Your task to perform on an android device: toggle sleep mode Image 0: 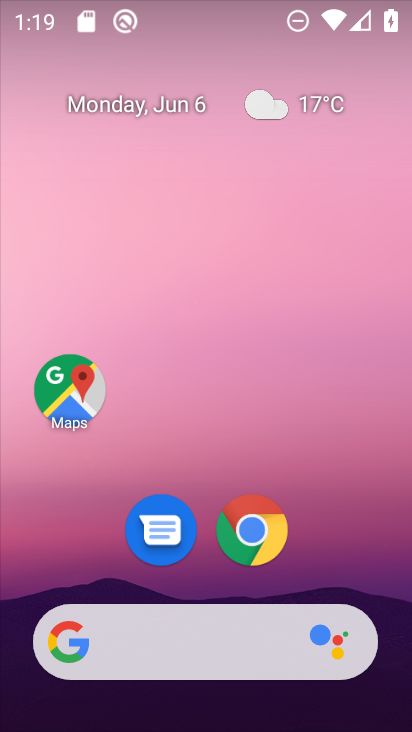
Step 0: drag from (323, 565) to (203, 5)
Your task to perform on an android device: toggle sleep mode Image 1: 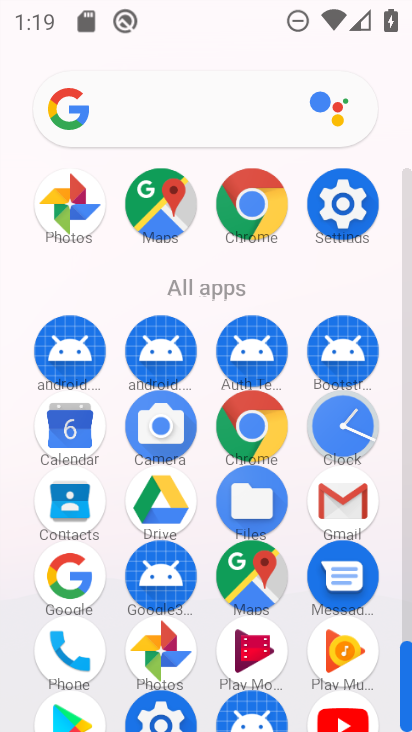
Step 1: click (343, 200)
Your task to perform on an android device: toggle sleep mode Image 2: 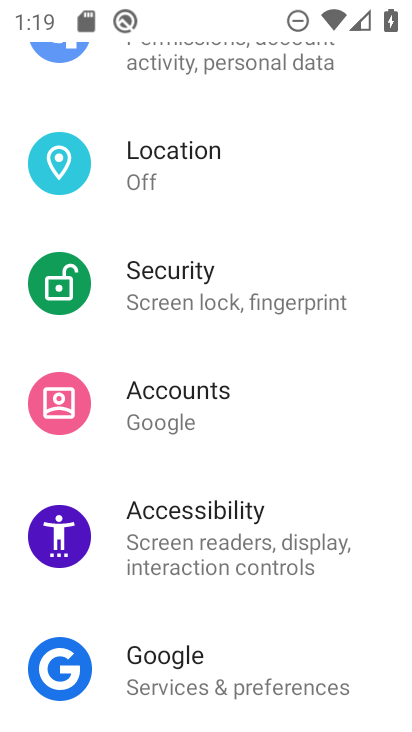
Step 2: drag from (226, 420) to (199, 501)
Your task to perform on an android device: toggle sleep mode Image 3: 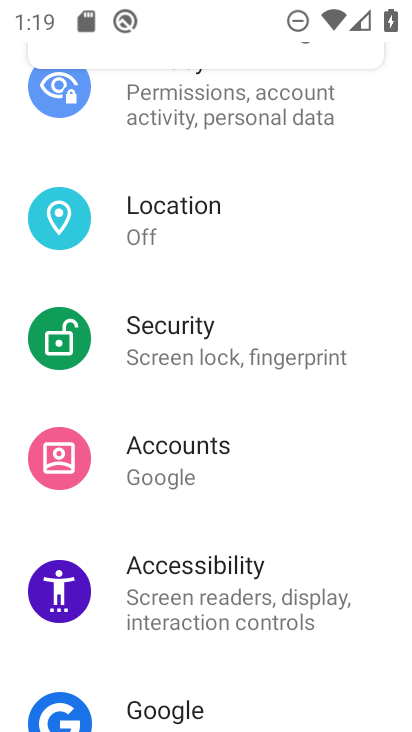
Step 3: drag from (267, 210) to (256, 404)
Your task to perform on an android device: toggle sleep mode Image 4: 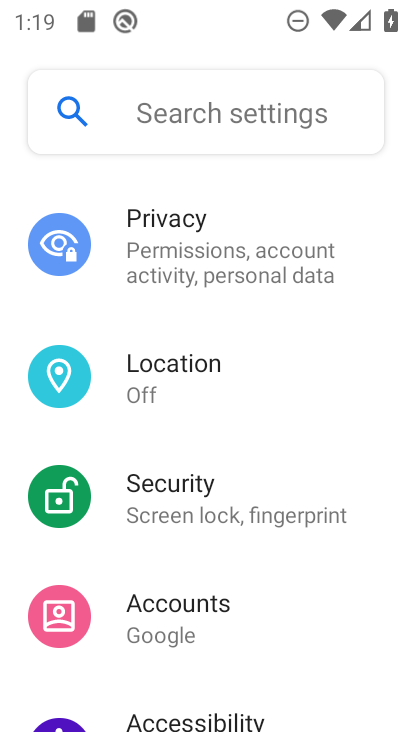
Step 4: drag from (243, 322) to (274, 437)
Your task to perform on an android device: toggle sleep mode Image 5: 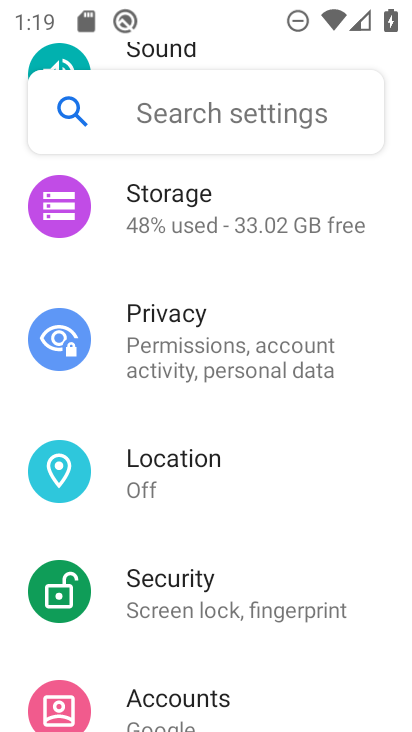
Step 5: drag from (272, 335) to (291, 424)
Your task to perform on an android device: toggle sleep mode Image 6: 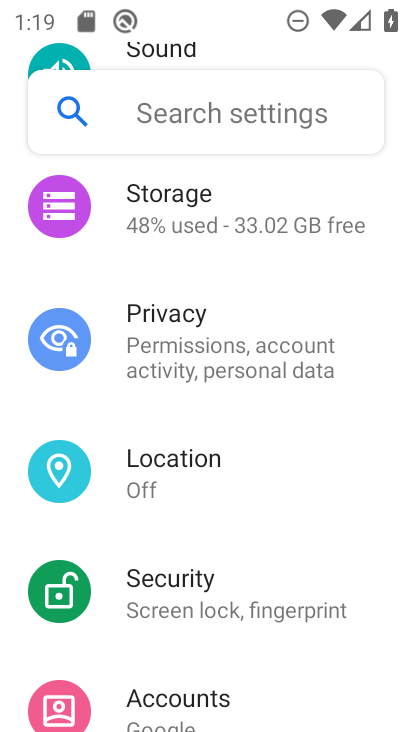
Step 6: drag from (234, 539) to (287, 461)
Your task to perform on an android device: toggle sleep mode Image 7: 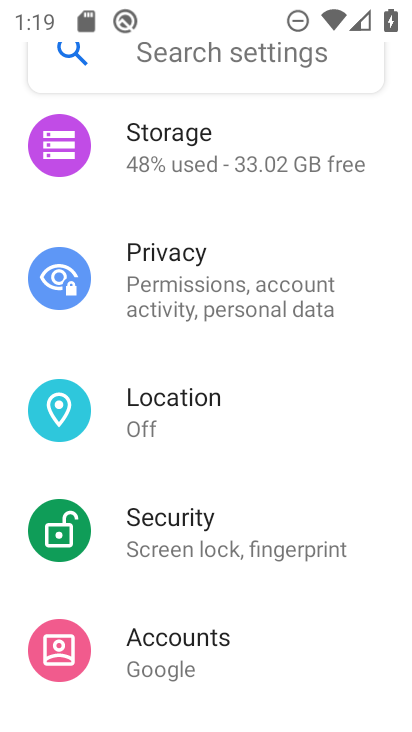
Step 7: drag from (320, 216) to (301, 505)
Your task to perform on an android device: toggle sleep mode Image 8: 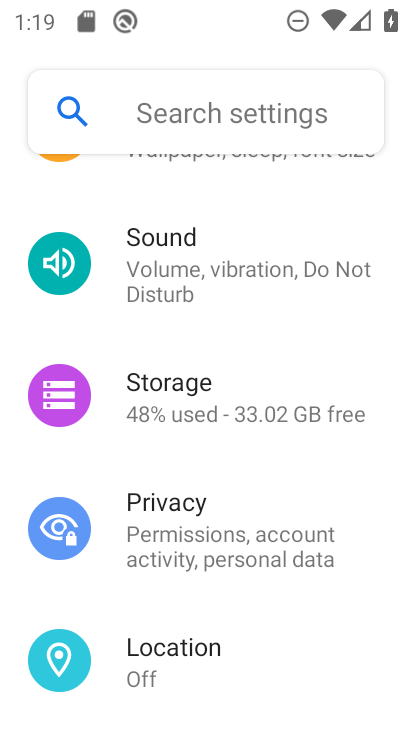
Step 8: drag from (236, 239) to (300, 439)
Your task to perform on an android device: toggle sleep mode Image 9: 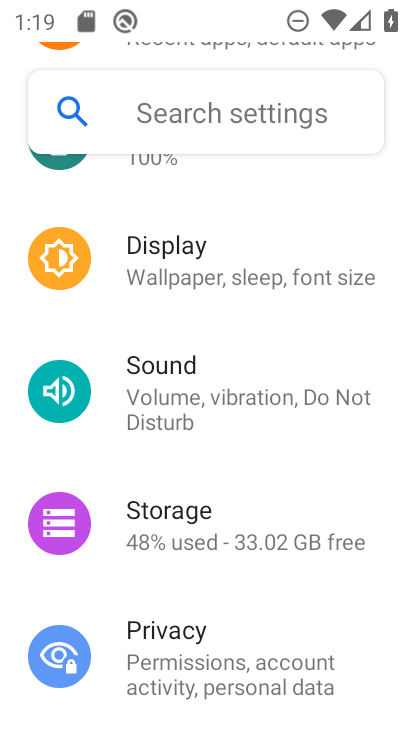
Step 9: drag from (273, 292) to (296, 351)
Your task to perform on an android device: toggle sleep mode Image 10: 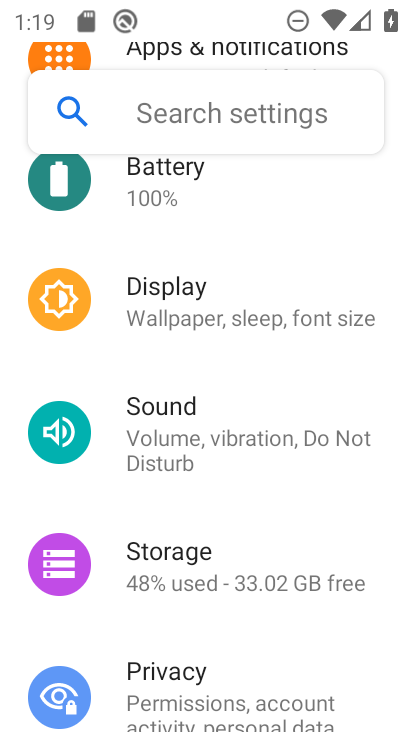
Step 10: drag from (303, 256) to (320, 391)
Your task to perform on an android device: toggle sleep mode Image 11: 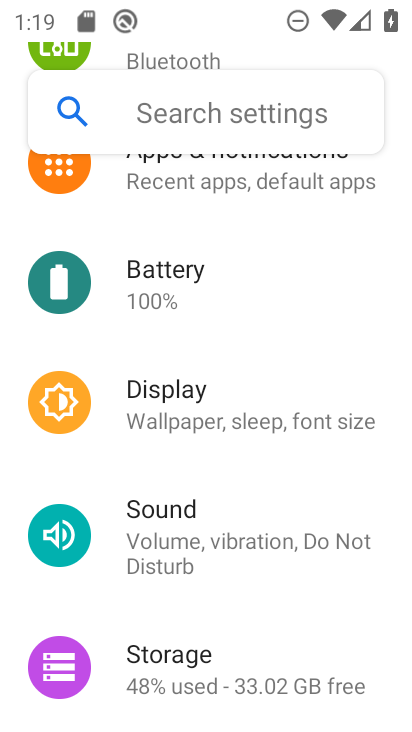
Step 11: drag from (310, 264) to (288, 422)
Your task to perform on an android device: toggle sleep mode Image 12: 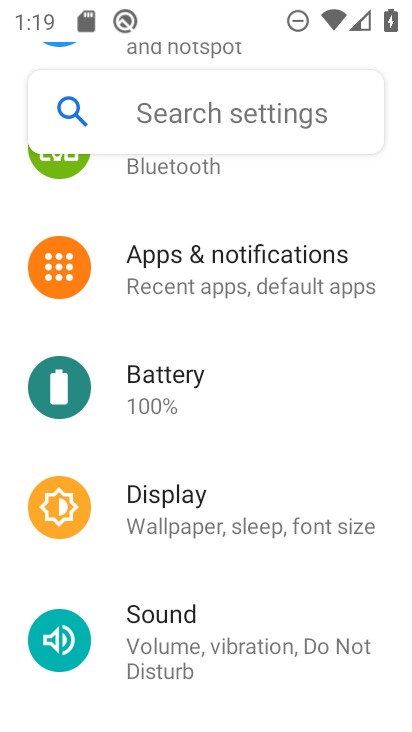
Step 12: click (278, 531)
Your task to perform on an android device: toggle sleep mode Image 13: 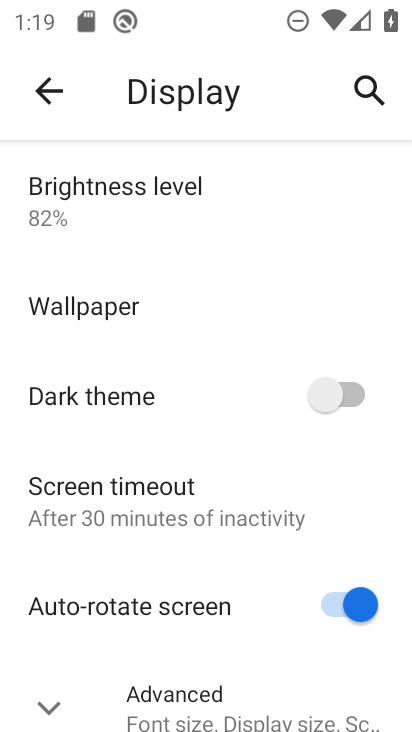
Step 13: click (273, 333)
Your task to perform on an android device: toggle sleep mode Image 14: 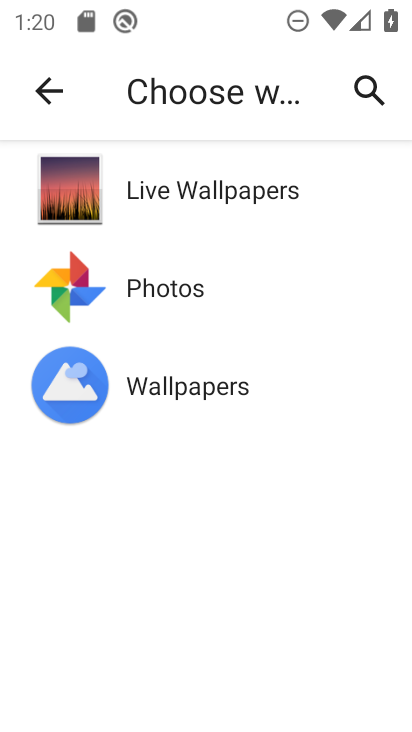
Step 14: task complete